Your task to perform on an android device: Go to ESPN.com Image 0: 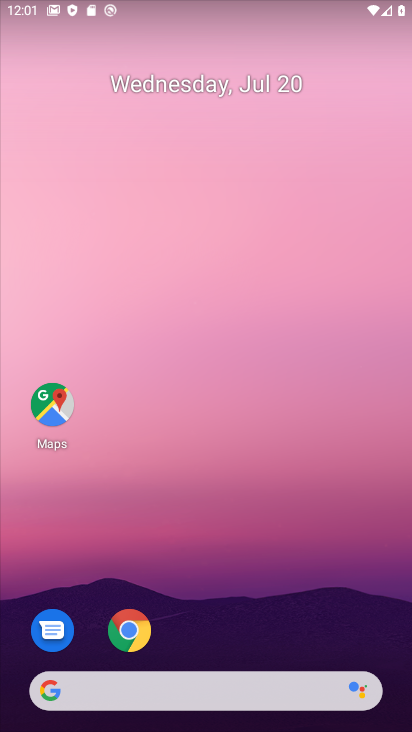
Step 0: click (124, 630)
Your task to perform on an android device: Go to ESPN.com Image 1: 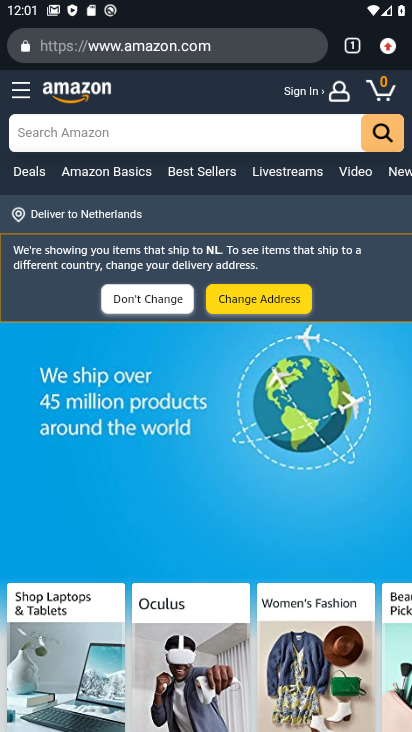
Step 1: click (390, 42)
Your task to perform on an android device: Go to ESPN.com Image 2: 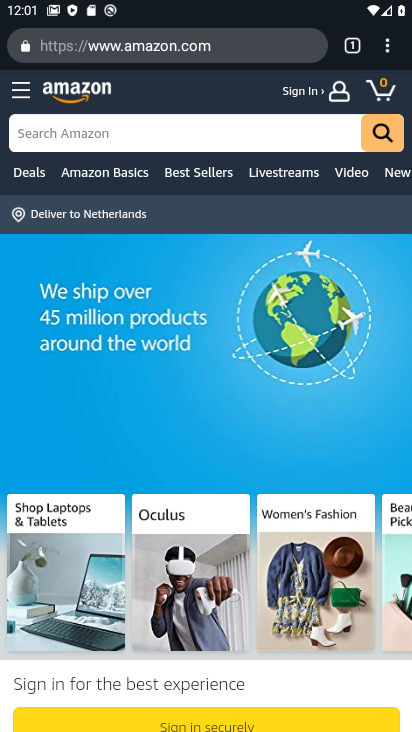
Step 2: click (389, 45)
Your task to perform on an android device: Go to ESPN.com Image 3: 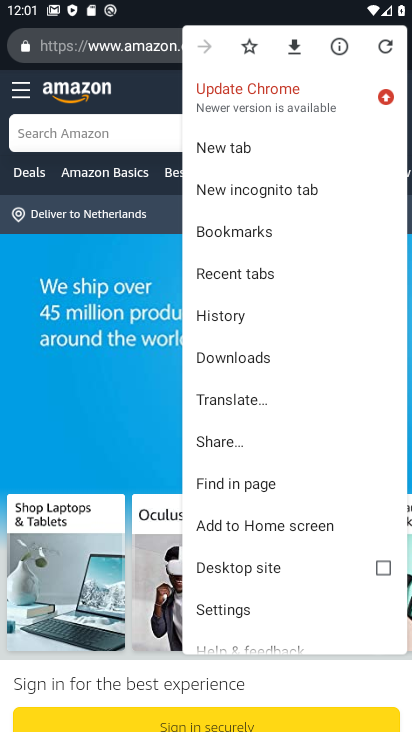
Step 3: click (244, 144)
Your task to perform on an android device: Go to ESPN.com Image 4: 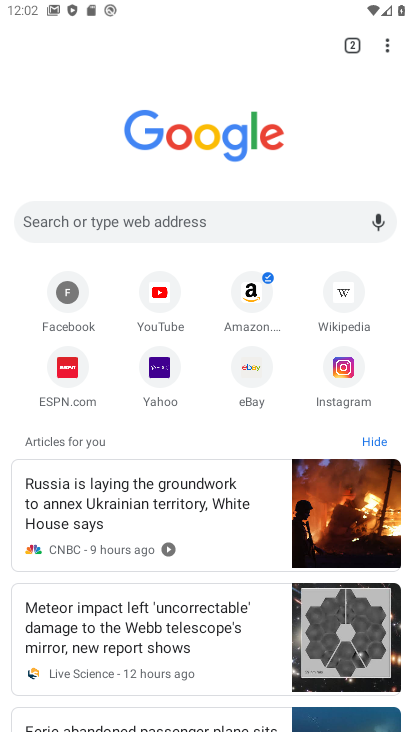
Step 4: click (68, 367)
Your task to perform on an android device: Go to ESPN.com Image 5: 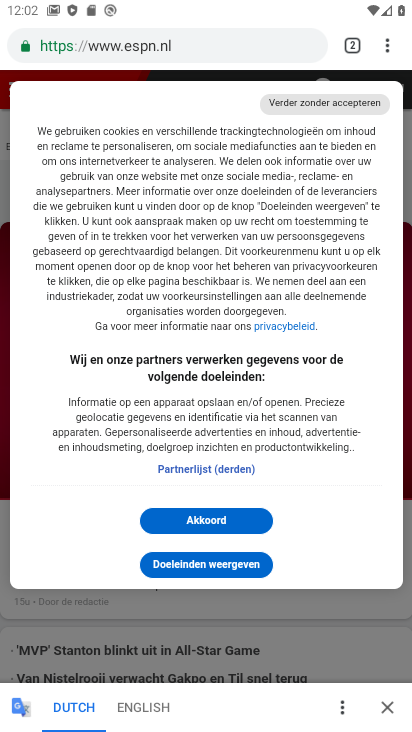
Step 5: click (198, 523)
Your task to perform on an android device: Go to ESPN.com Image 6: 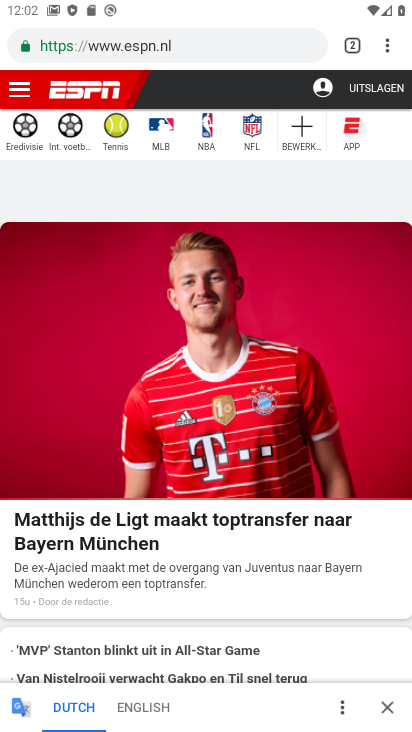
Step 6: task complete